Your task to perform on an android device: Go to accessibility settings Image 0: 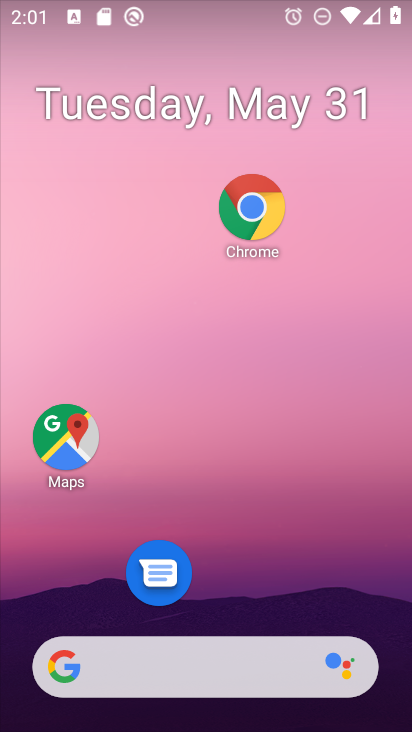
Step 0: drag from (244, 669) to (236, 158)
Your task to perform on an android device: Go to accessibility settings Image 1: 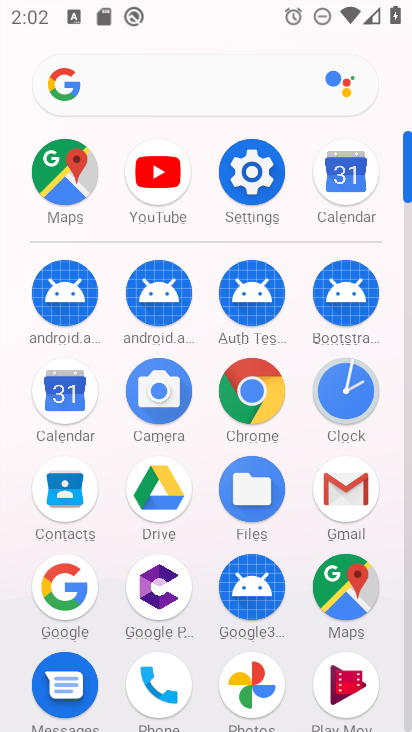
Step 1: click (251, 198)
Your task to perform on an android device: Go to accessibility settings Image 2: 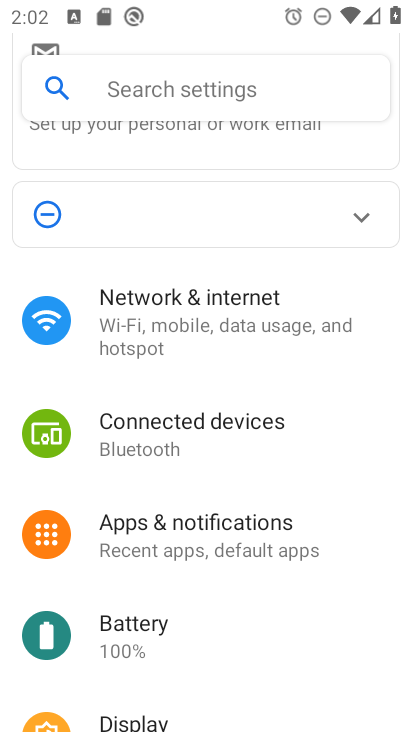
Step 2: drag from (187, 584) to (196, 178)
Your task to perform on an android device: Go to accessibility settings Image 3: 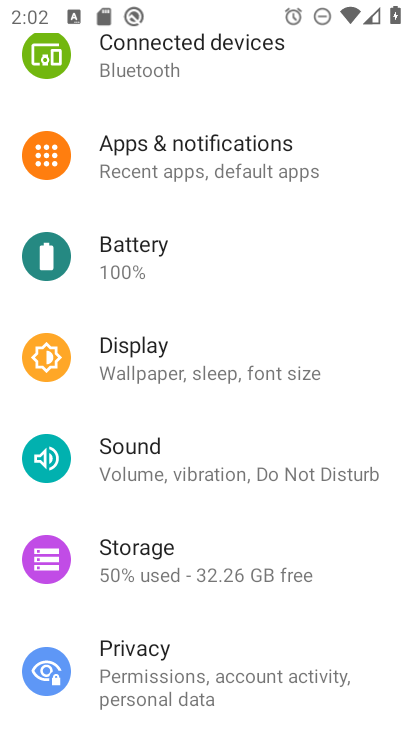
Step 3: drag from (159, 523) to (157, 259)
Your task to perform on an android device: Go to accessibility settings Image 4: 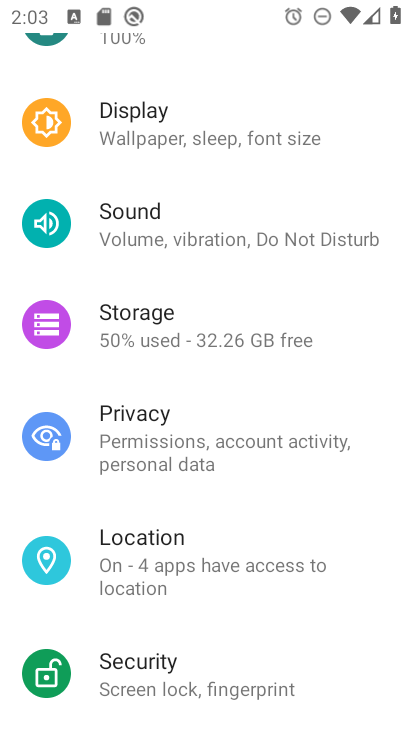
Step 4: drag from (165, 506) to (156, 228)
Your task to perform on an android device: Go to accessibility settings Image 5: 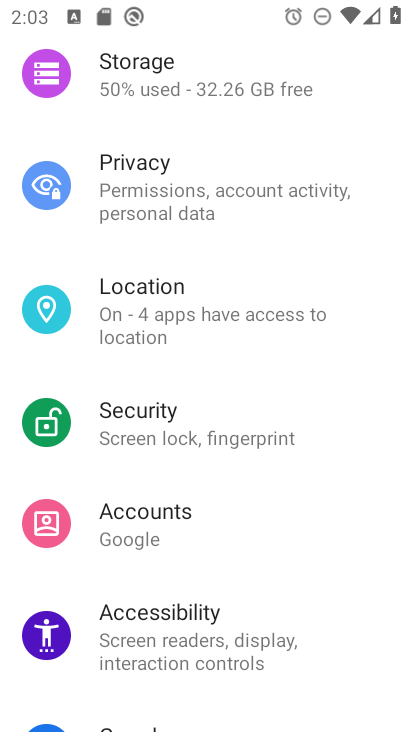
Step 5: click (190, 640)
Your task to perform on an android device: Go to accessibility settings Image 6: 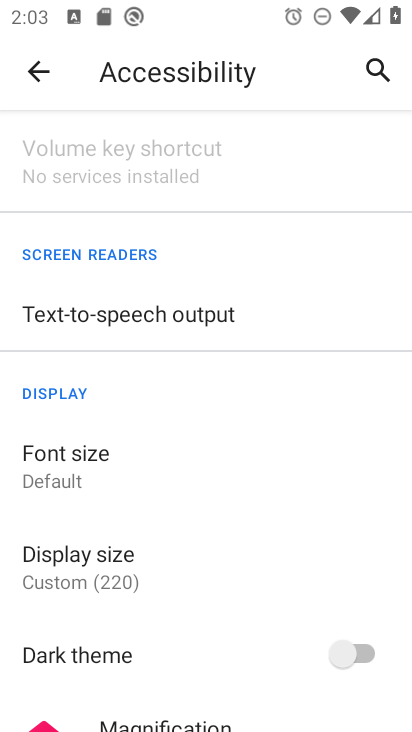
Step 6: task complete